Your task to perform on an android device: Show me the alarms in the clock app Image 0: 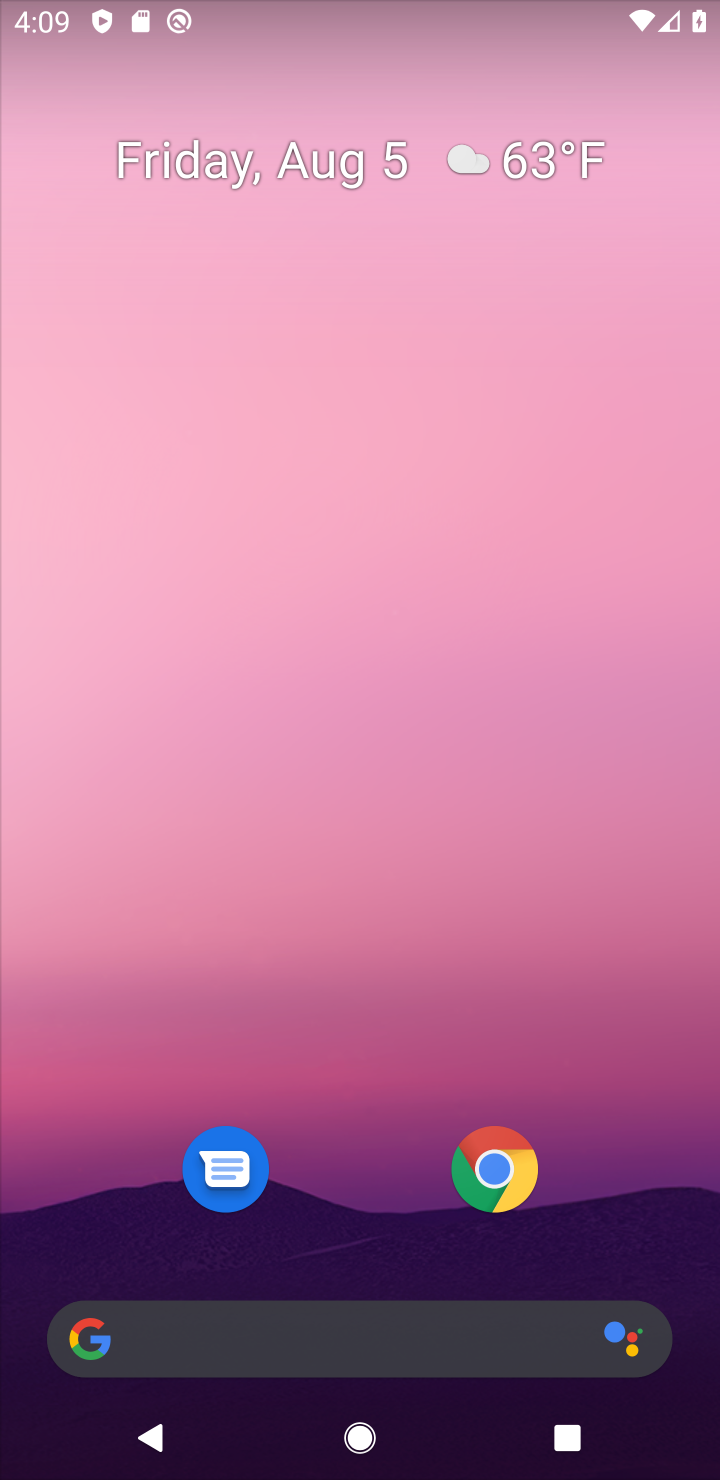
Step 0: drag from (305, 1285) to (331, 634)
Your task to perform on an android device: Show me the alarms in the clock app Image 1: 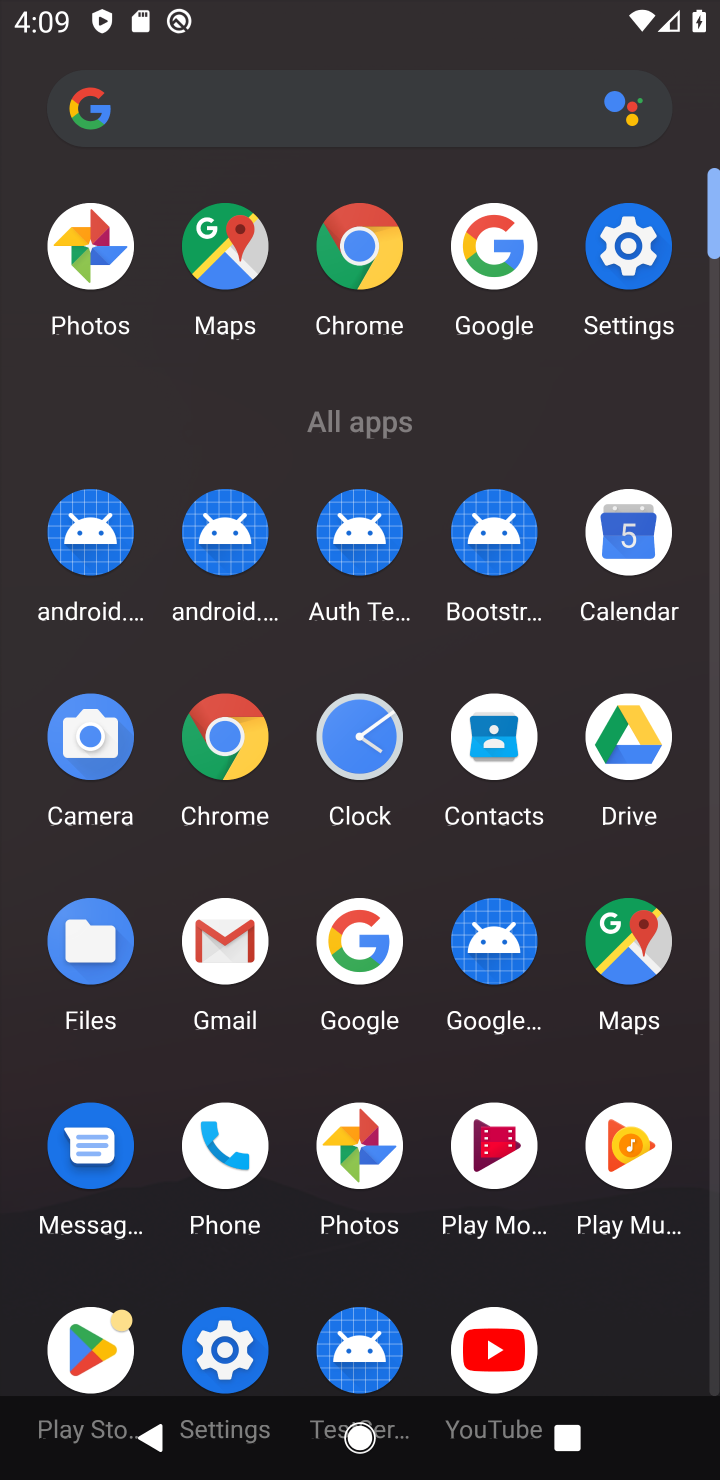
Step 1: click (358, 751)
Your task to perform on an android device: Show me the alarms in the clock app Image 2: 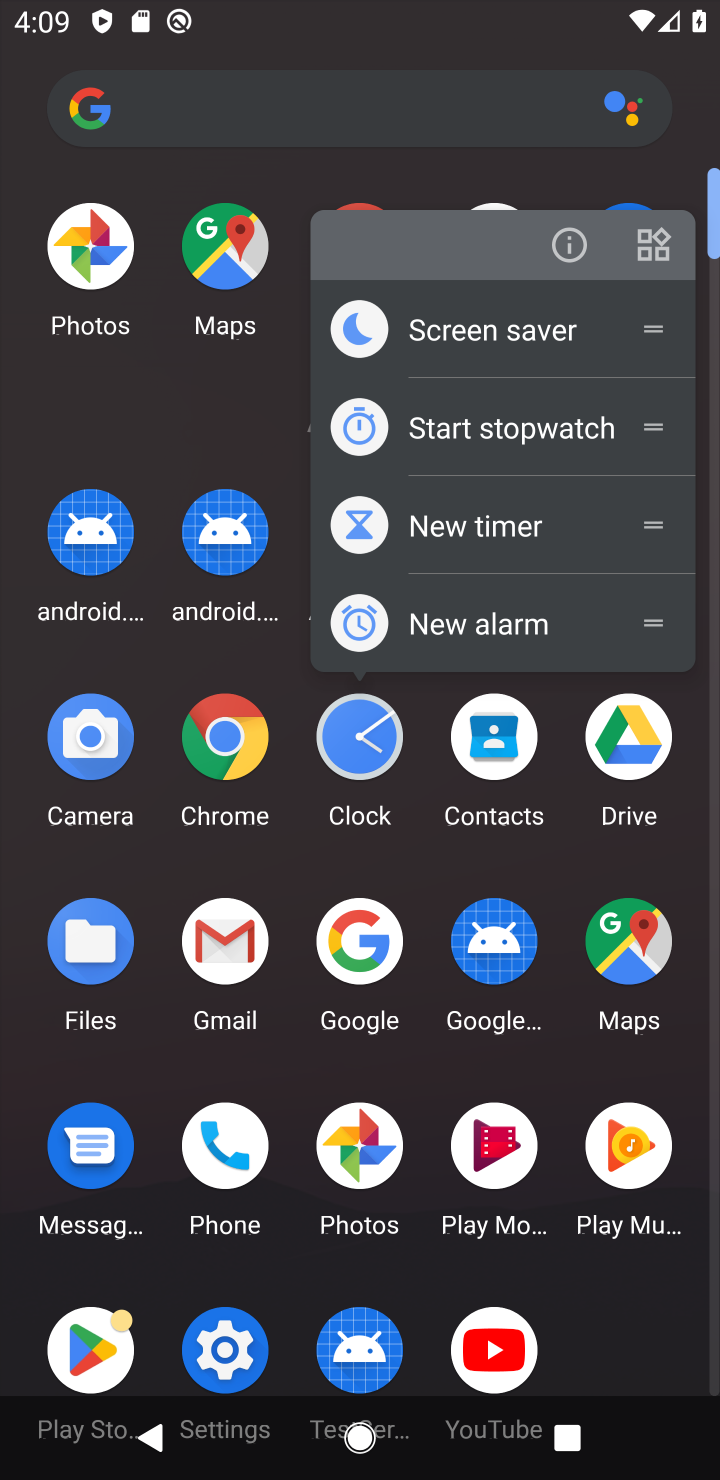
Step 2: click (358, 751)
Your task to perform on an android device: Show me the alarms in the clock app Image 3: 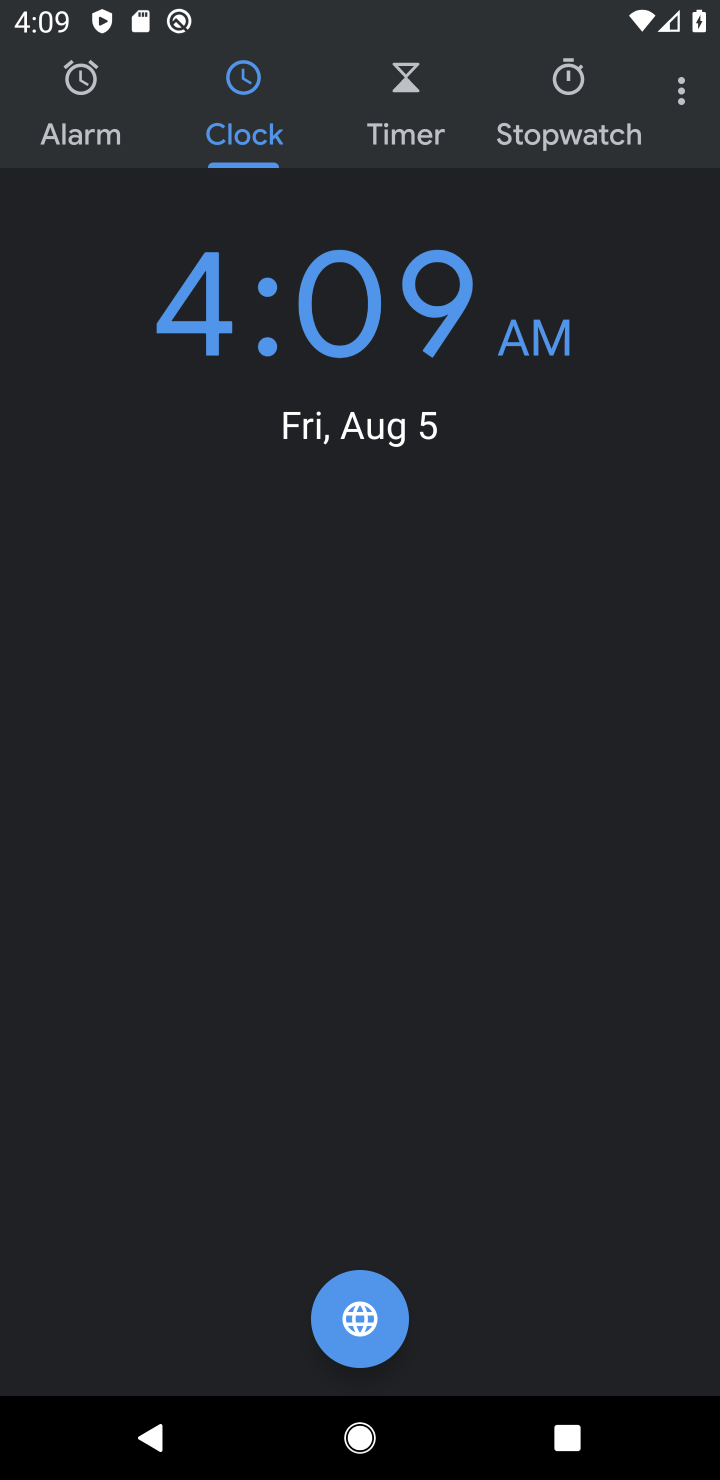
Step 3: click (112, 117)
Your task to perform on an android device: Show me the alarms in the clock app Image 4: 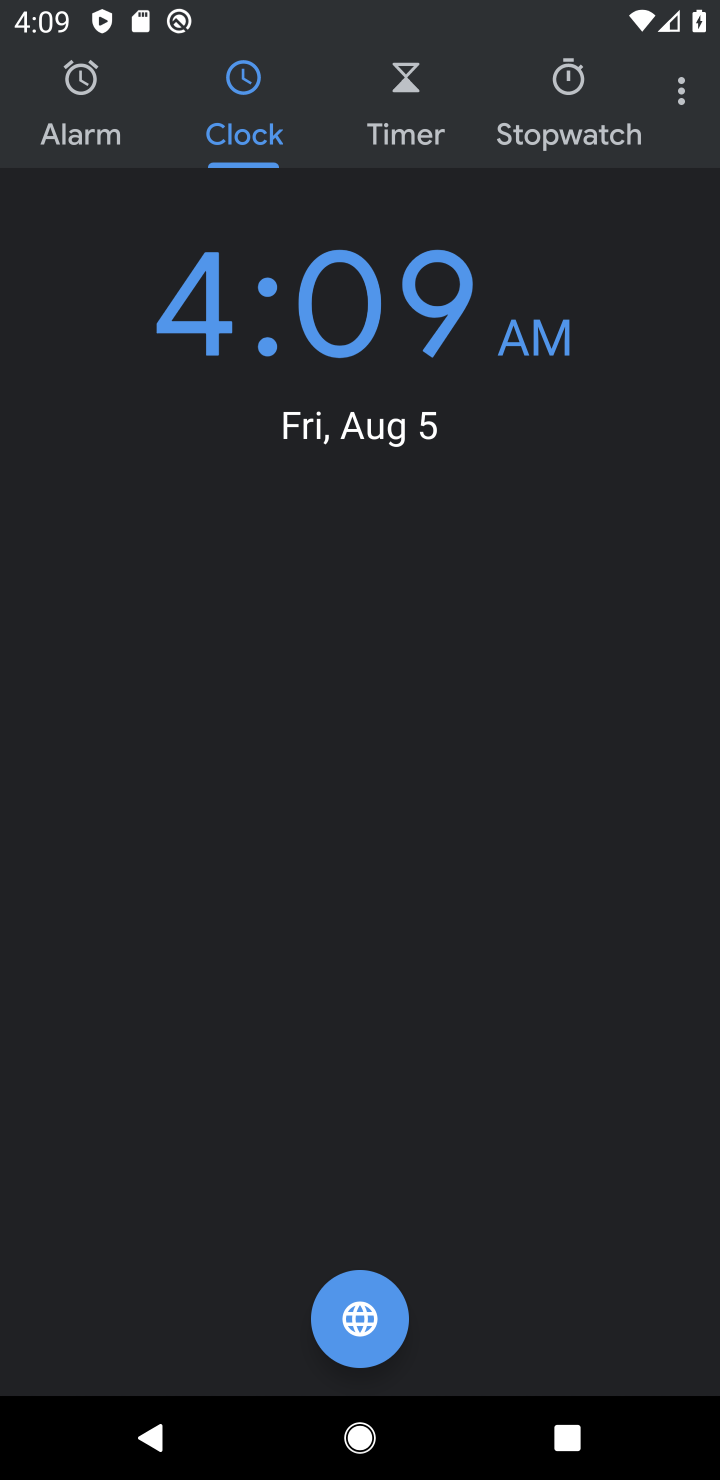
Step 4: click (69, 136)
Your task to perform on an android device: Show me the alarms in the clock app Image 5: 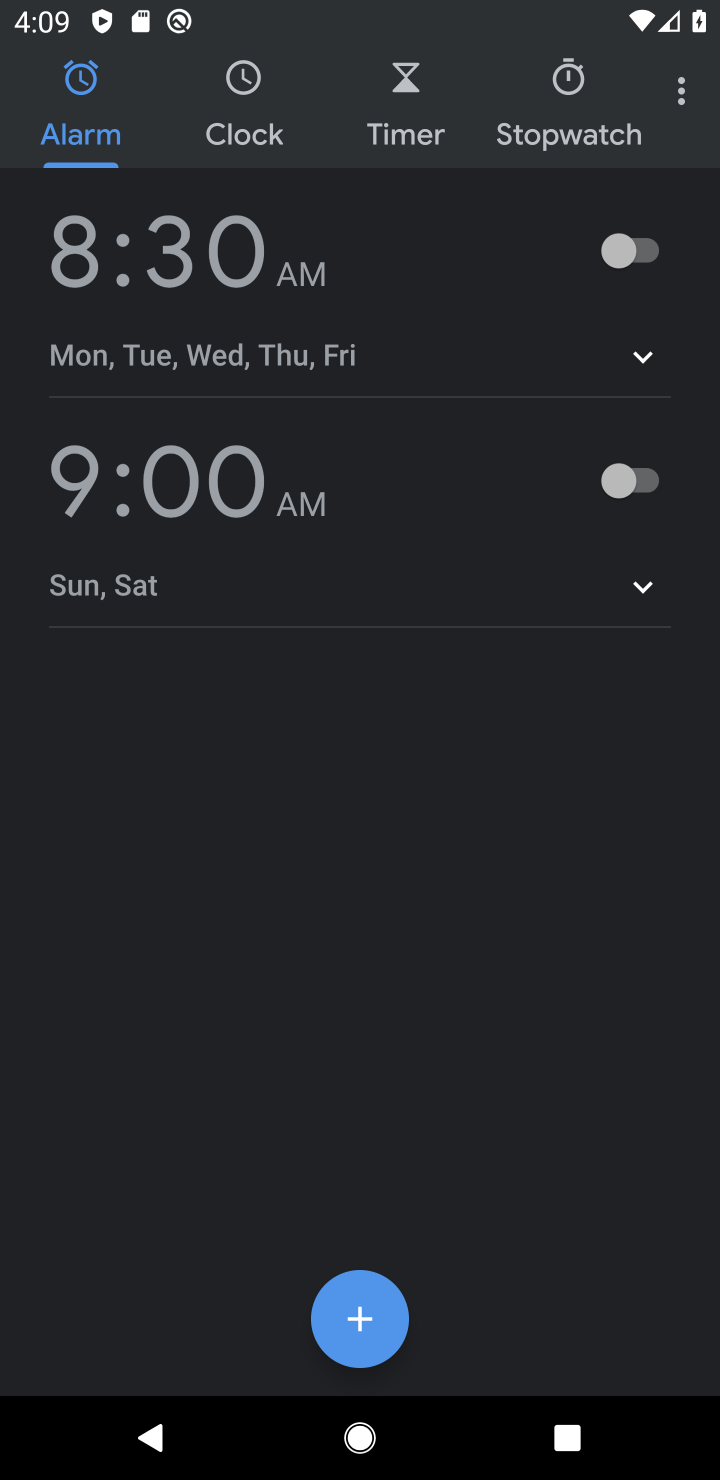
Step 5: task complete